Your task to perform on an android device: Go to calendar. Show me events next week Image 0: 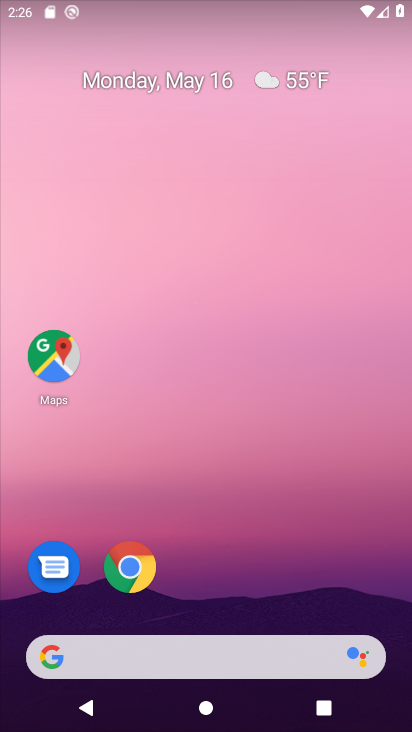
Step 0: drag from (276, 604) to (238, 65)
Your task to perform on an android device: Go to calendar. Show me events next week Image 1: 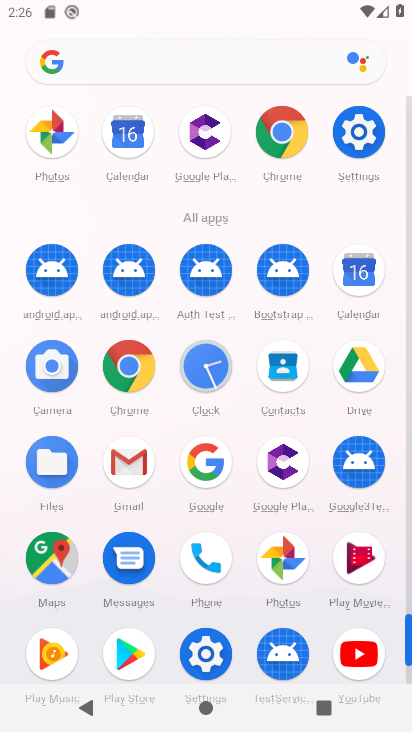
Step 1: click (363, 273)
Your task to perform on an android device: Go to calendar. Show me events next week Image 2: 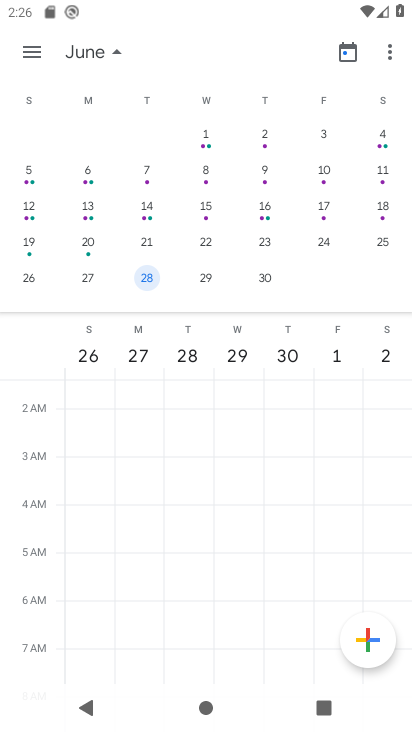
Step 2: click (74, 41)
Your task to perform on an android device: Go to calendar. Show me events next week Image 3: 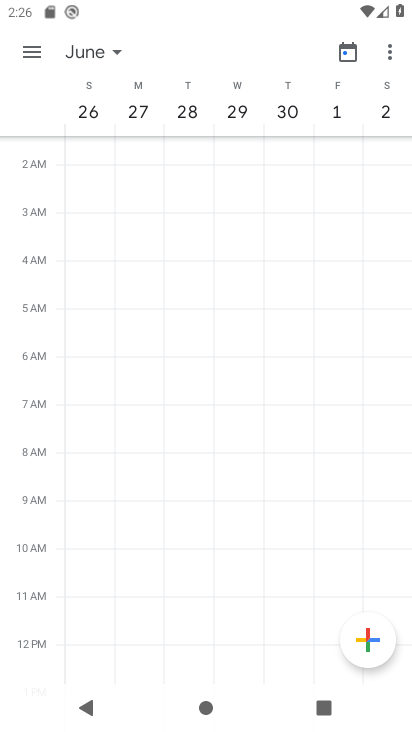
Step 3: click (95, 48)
Your task to perform on an android device: Go to calendar. Show me events next week Image 4: 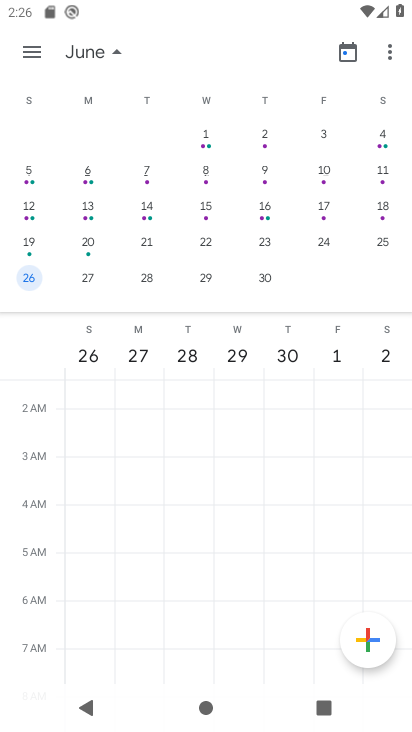
Step 4: drag from (34, 179) to (384, 217)
Your task to perform on an android device: Go to calendar. Show me events next week Image 5: 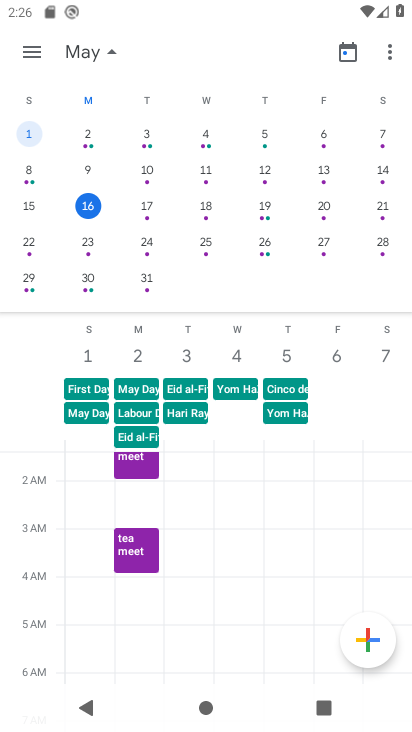
Step 5: click (83, 250)
Your task to perform on an android device: Go to calendar. Show me events next week Image 6: 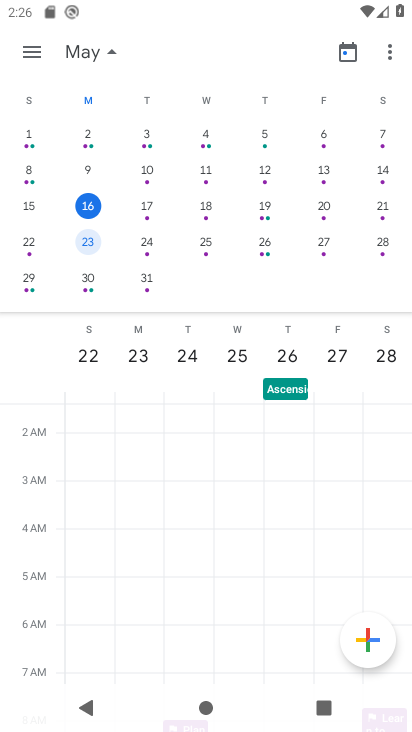
Step 6: task complete